Your task to perform on an android device: toggle wifi Image 0: 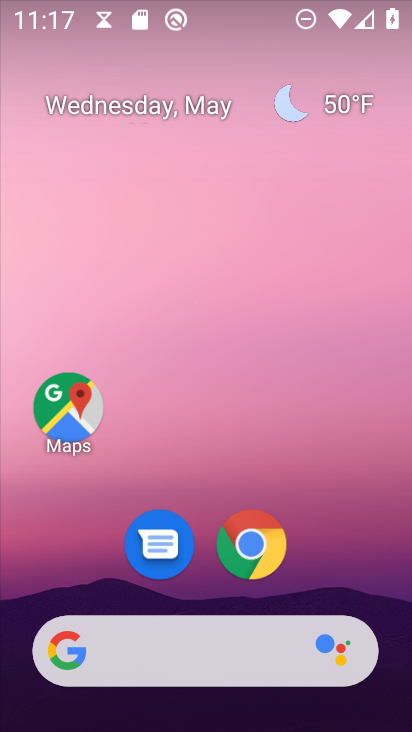
Step 0: drag from (212, 1) to (234, 693)
Your task to perform on an android device: toggle wifi Image 1: 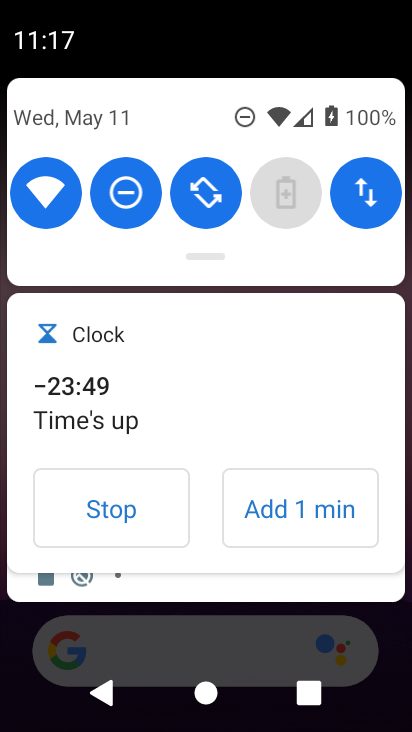
Step 1: click (45, 222)
Your task to perform on an android device: toggle wifi Image 2: 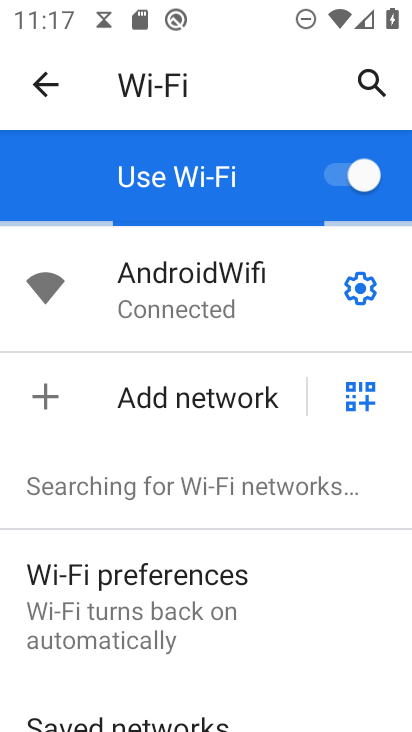
Step 2: click (365, 171)
Your task to perform on an android device: toggle wifi Image 3: 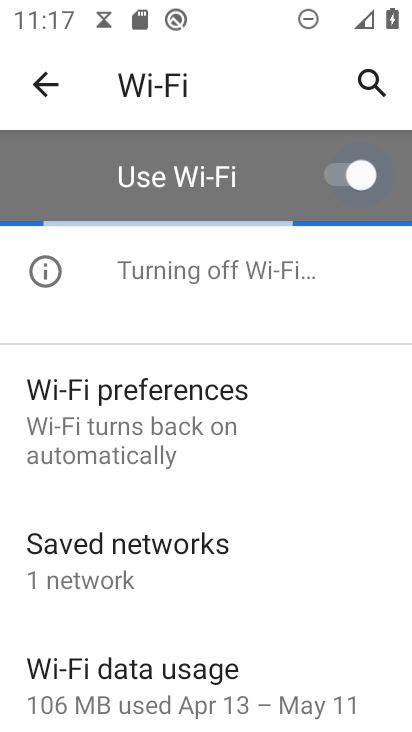
Step 3: click (365, 171)
Your task to perform on an android device: toggle wifi Image 4: 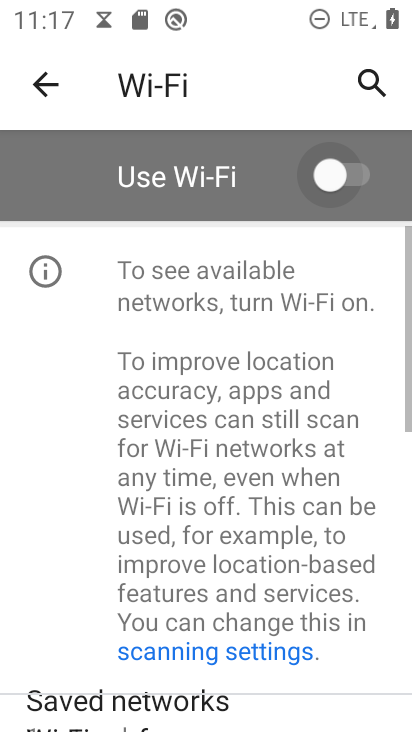
Step 4: click (365, 171)
Your task to perform on an android device: toggle wifi Image 5: 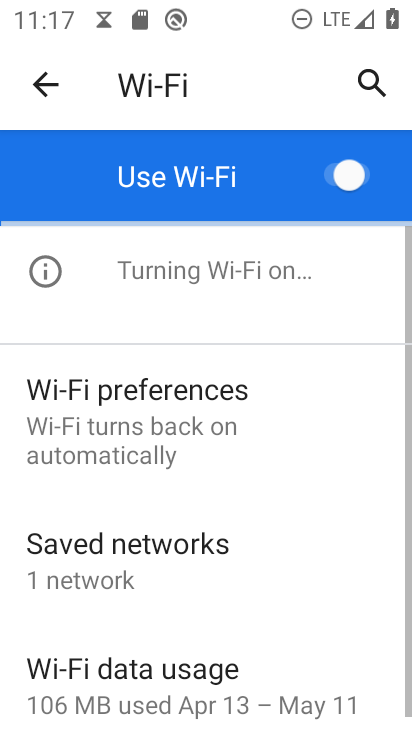
Step 5: click (365, 171)
Your task to perform on an android device: toggle wifi Image 6: 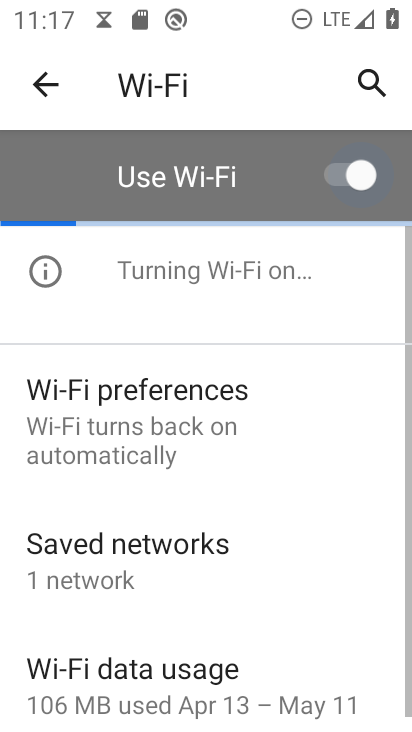
Step 6: click (365, 171)
Your task to perform on an android device: toggle wifi Image 7: 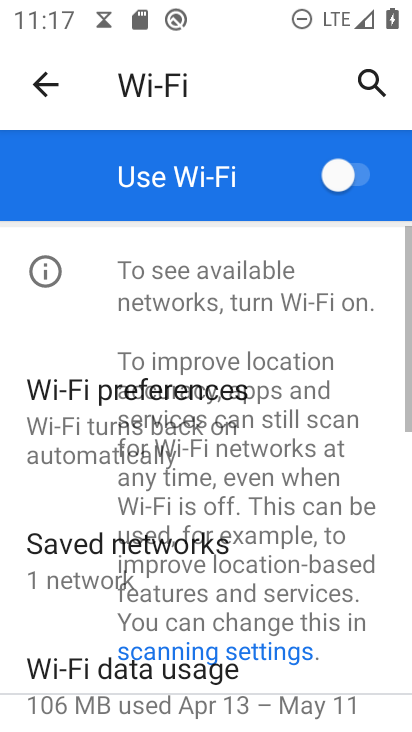
Step 7: click (365, 171)
Your task to perform on an android device: toggle wifi Image 8: 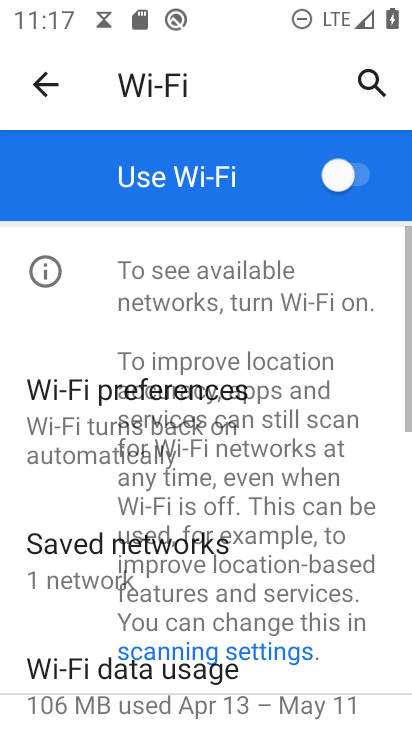
Step 8: click (365, 171)
Your task to perform on an android device: toggle wifi Image 9: 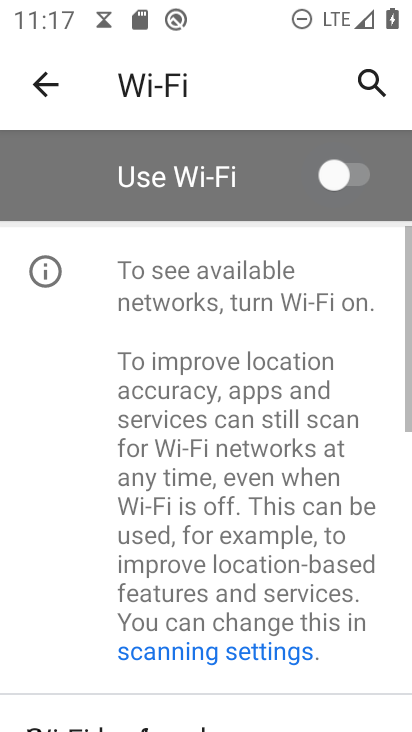
Step 9: click (365, 171)
Your task to perform on an android device: toggle wifi Image 10: 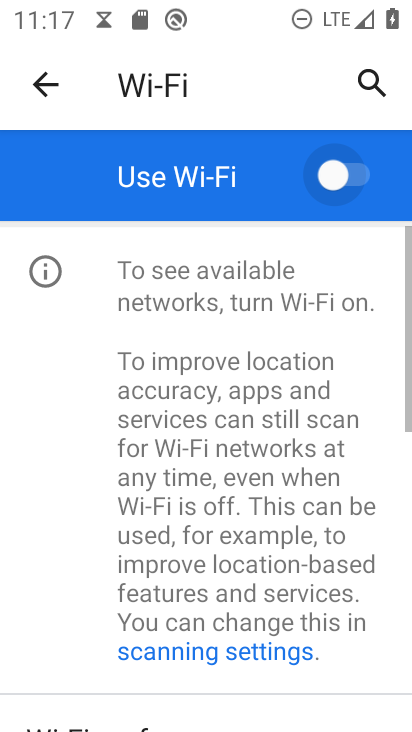
Step 10: click (365, 171)
Your task to perform on an android device: toggle wifi Image 11: 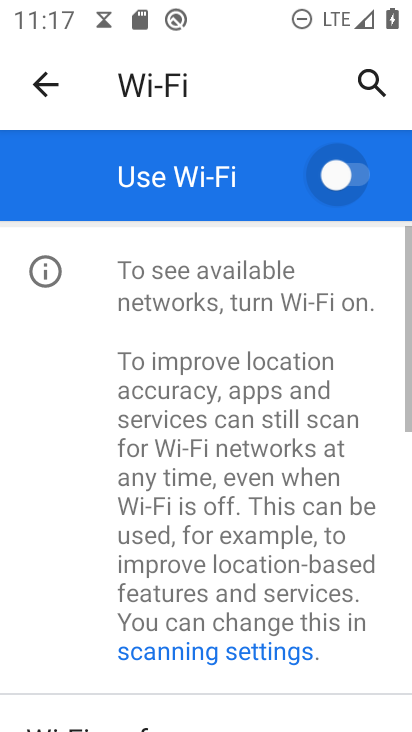
Step 11: click (365, 171)
Your task to perform on an android device: toggle wifi Image 12: 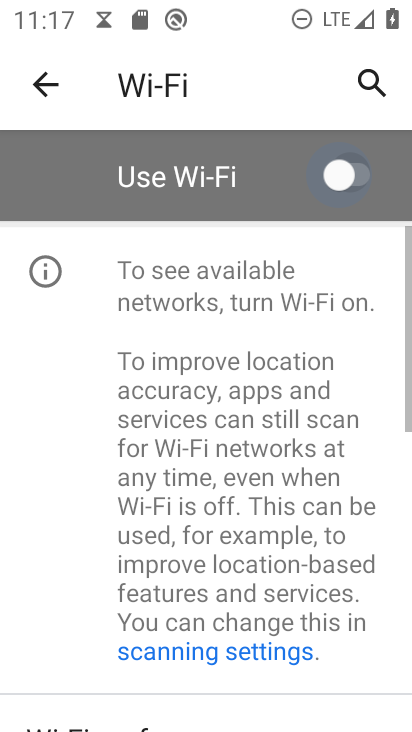
Step 12: click (365, 171)
Your task to perform on an android device: toggle wifi Image 13: 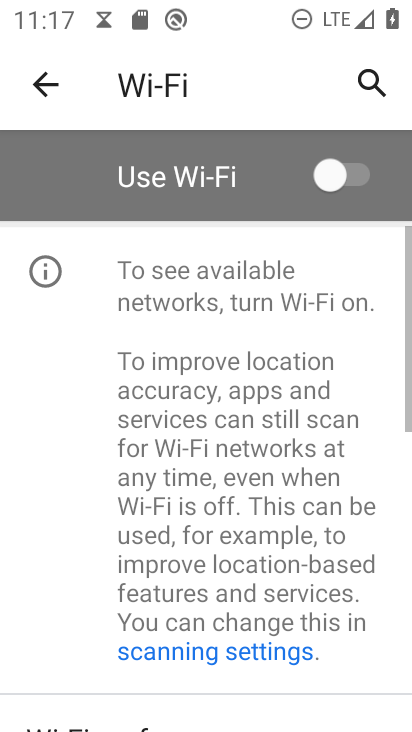
Step 13: click (365, 171)
Your task to perform on an android device: toggle wifi Image 14: 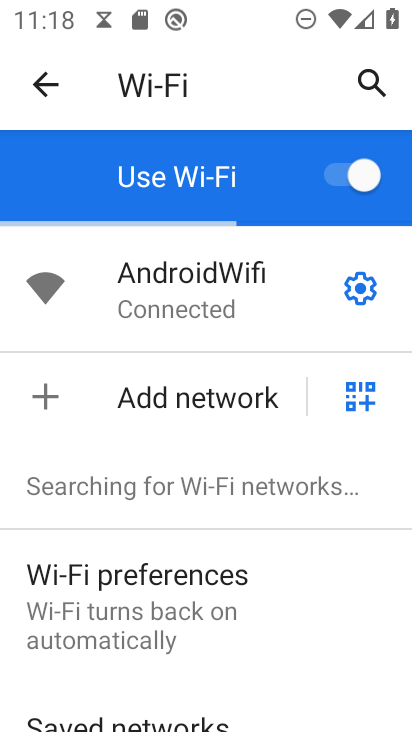
Step 14: task complete